Your task to perform on an android device: check the backup settings in the google photos Image 0: 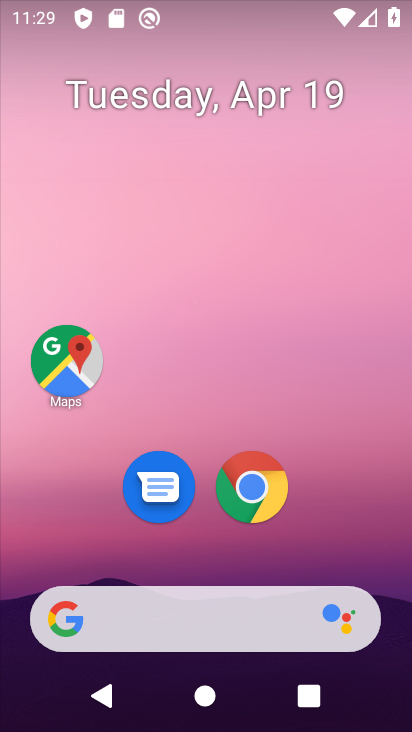
Step 0: drag from (368, 557) to (210, 130)
Your task to perform on an android device: check the backup settings in the google photos Image 1: 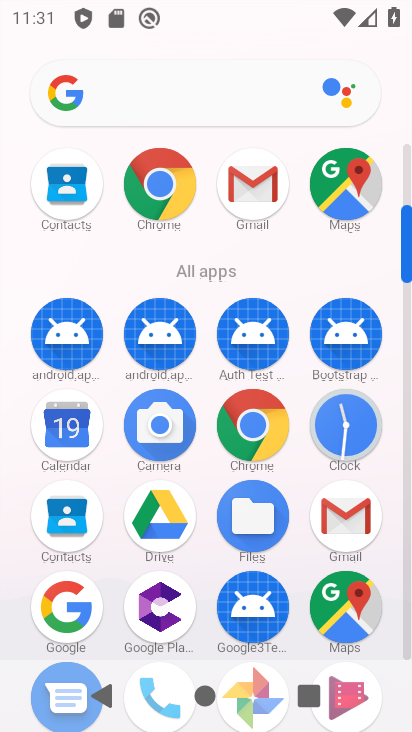
Step 1: click (406, 654)
Your task to perform on an android device: check the backup settings in the google photos Image 2: 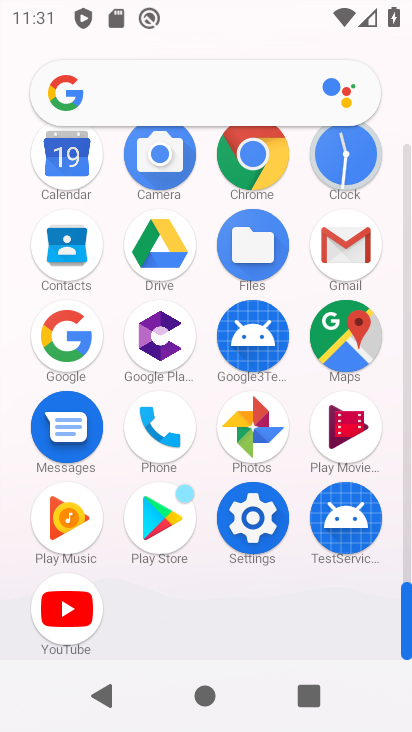
Step 2: click (254, 428)
Your task to perform on an android device: check the backup settings in the google photos Image 3: 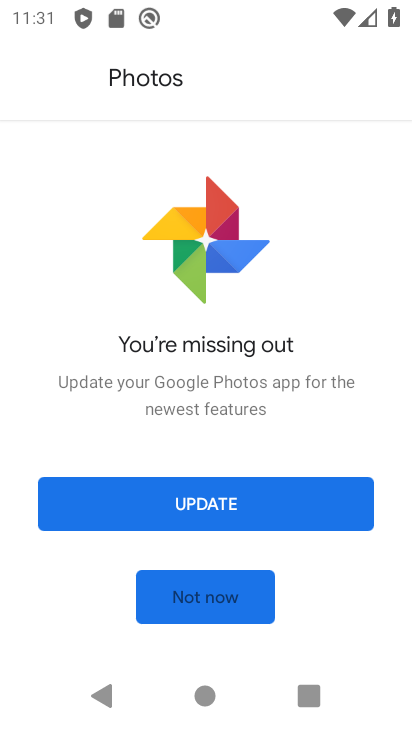
Step 3: click (239, 514)
Your task to perform on an android device: check the backup settings in the google photos Image 4: 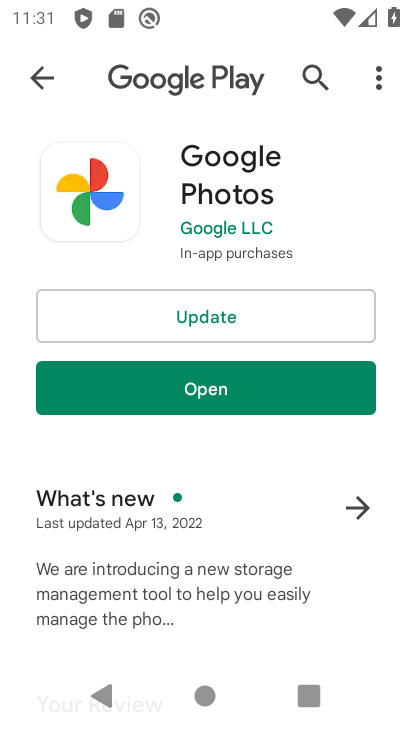
Step 4: click (203, 311)
Your task to perform on an android device: check the backup settings in the google photos Image 5: 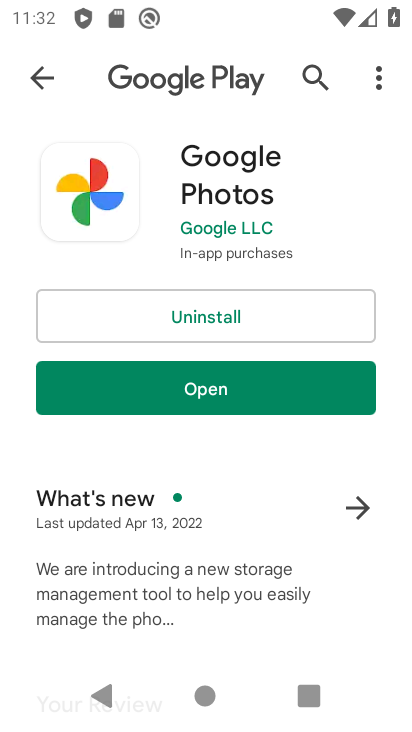
Step 5: click (204, 387)
Your task to perform on an android device: check the backup settings in the google photos Image 6: 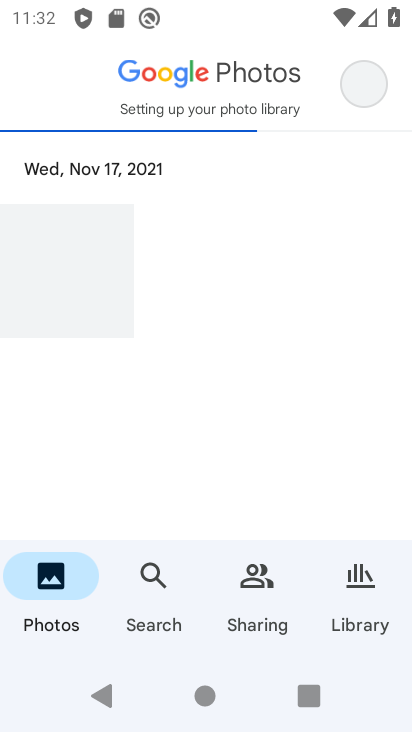
Step 6: click (357, 95)
Your task to perform on an android device: check the backup settings in the google photos Image 7: 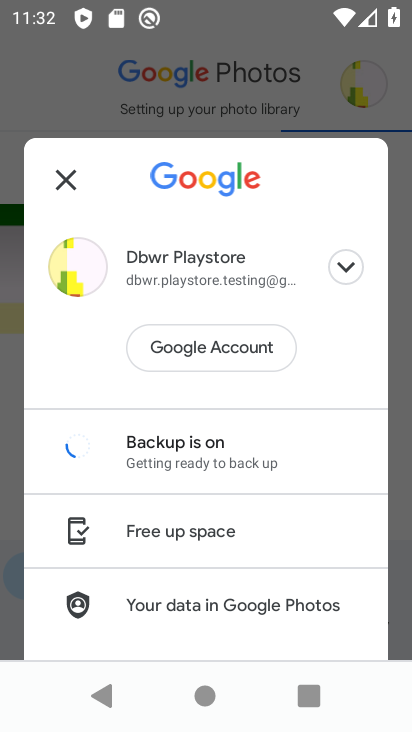
Step 7: click (228, 454)
Your task to perform on an android device: check the backup settings in the google photos Image 8: 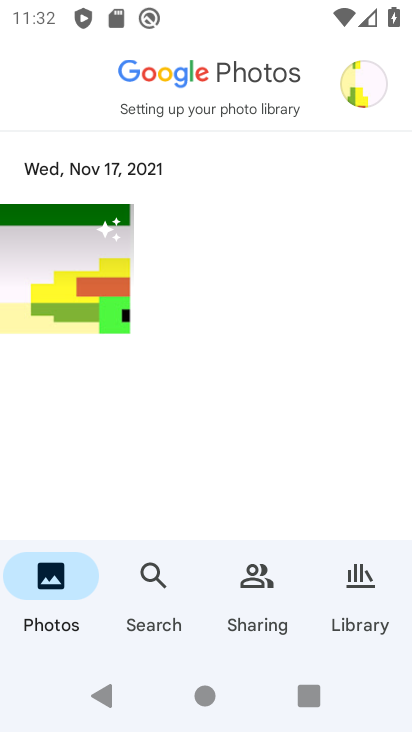
Step 8: click (349, 74)
Your task to perform on an android device: check the backup settings in the google photos Image 9: 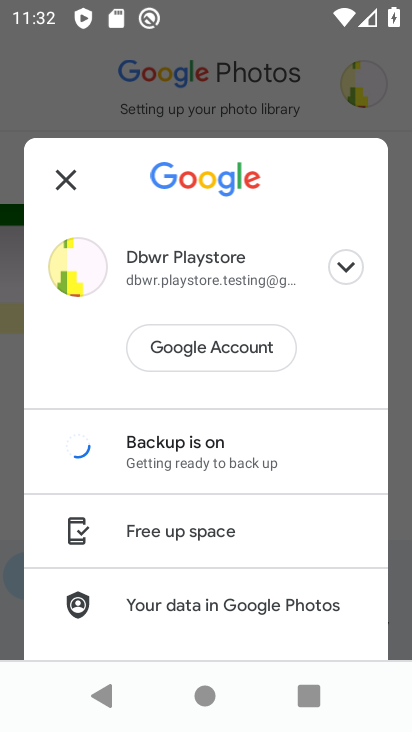
Step 9: click (241, 442)
Your task to perform on an android device: check the backup settings in the google photos Image 10: 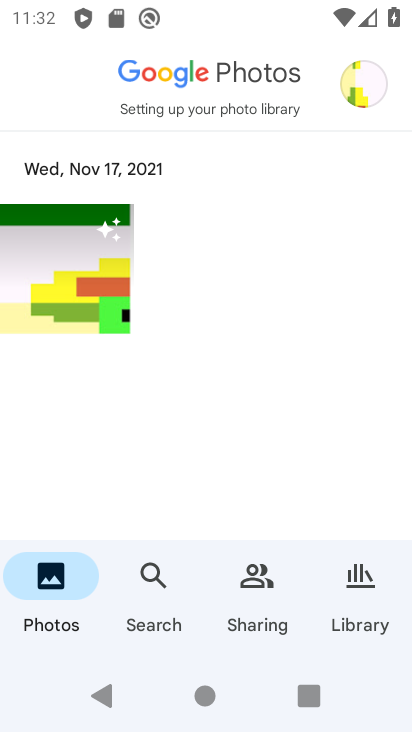
Step 10: click (370, 97)
Your task to perform on an android device: check the backup settings in the google photos Image 11: 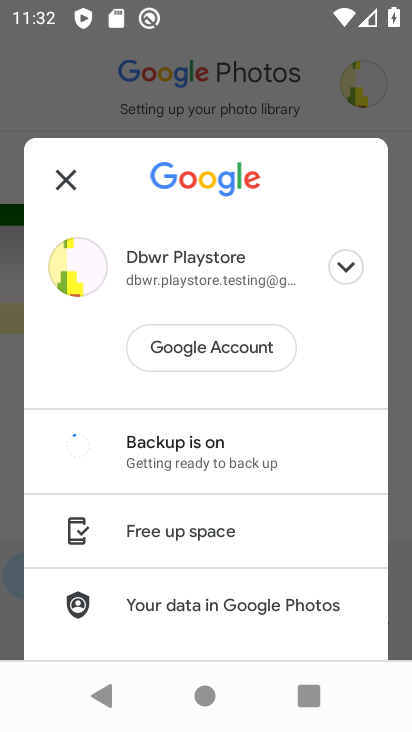
Step 11: click (230, 477)
Your task to perform on an android device: check the backup settings in the google photos Image 12: 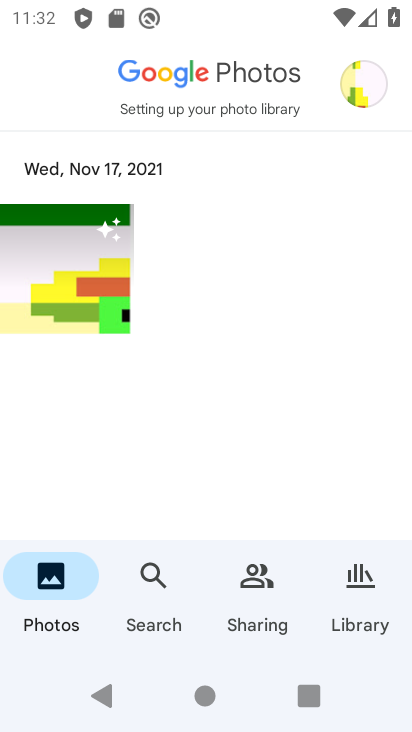
Step 12: task complete